Your task to perform on an android device: What's on my calendar today? Image 0: 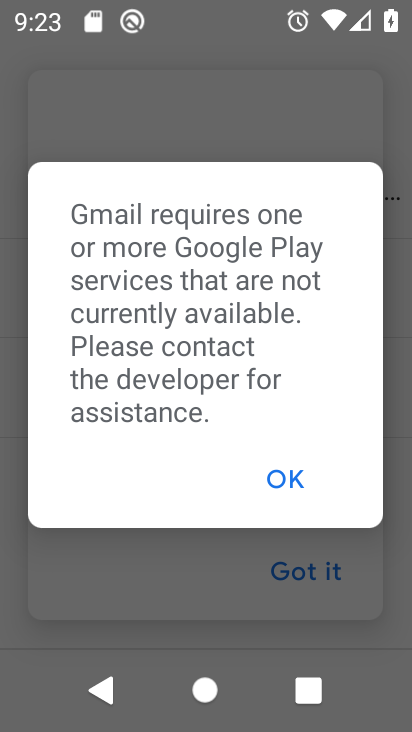
Step 0: press home button
Your task to perform on an android device: What's on my calendar today? Image 1: 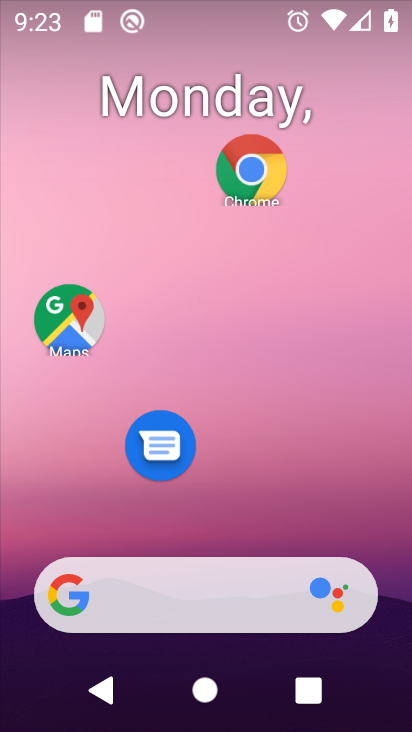
Step 1: drag from (222, 542) to (205, 185)
Your task to perform on an android device: What's on my calendar today? Image 2: 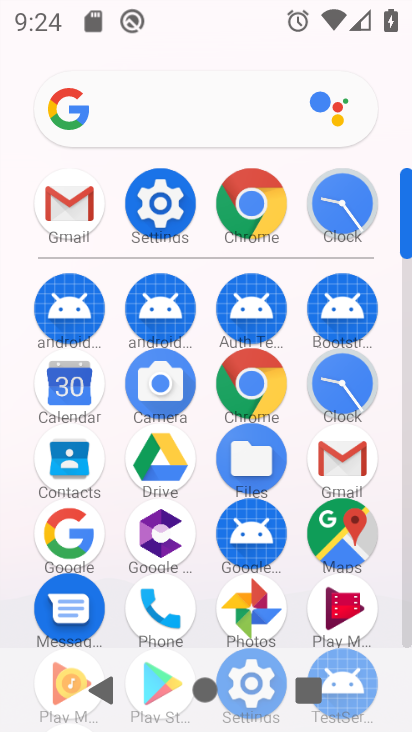
Step 2: click (70, 383)
Your task to perform on an android device: What's on my calendar today? Image 3: 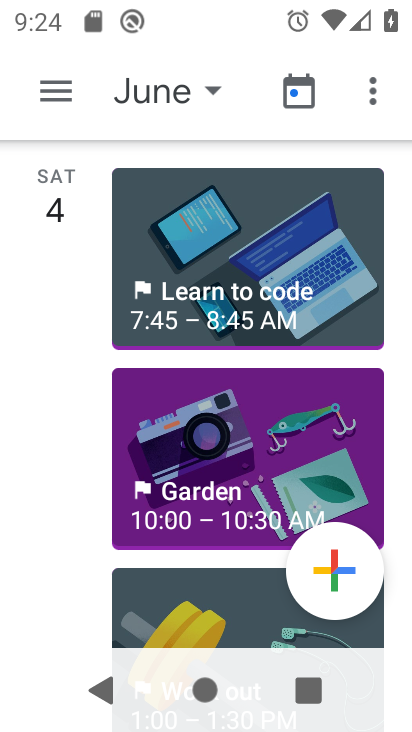
Step 3: click (51, 94)
Your task to perform on an android device: What's on my calendar today? Image 4: 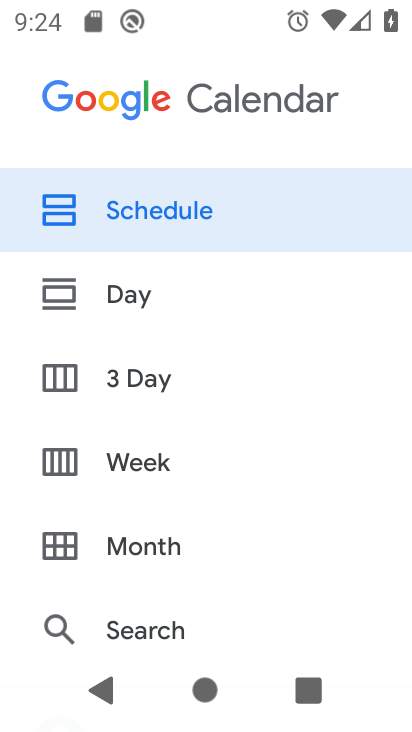
Step 4: click (88, 462)
Your task to perform on an android device: What's on my calendar today? Image 5: 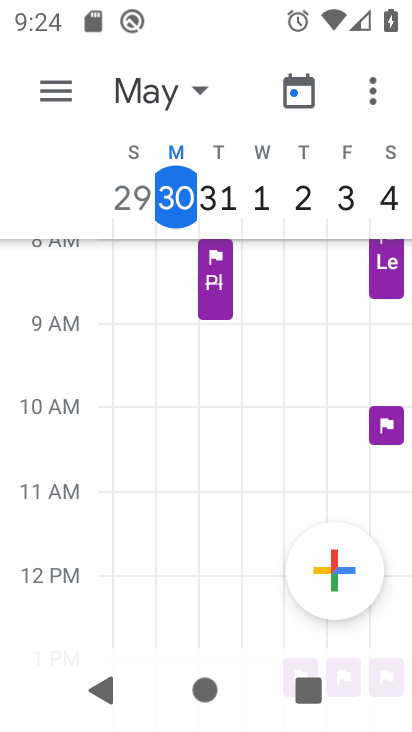
Step 5: click (172, 197)
Your task to perform on an android device: What's on my calendar today? Image 6: 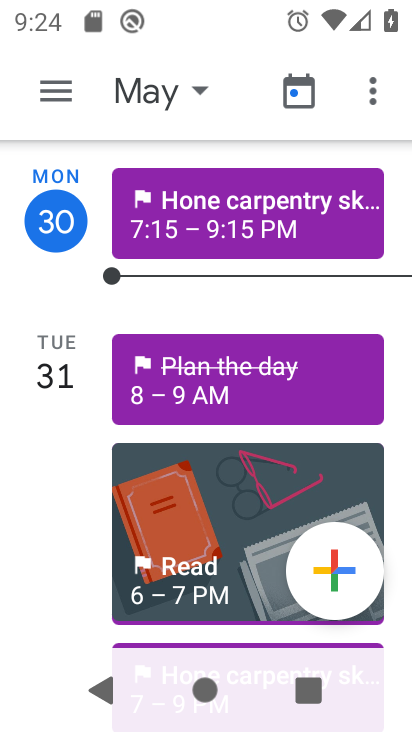
Step 6: click (84, 243)
Your task to perform on an android device: What's on my calendar today? Image 7: 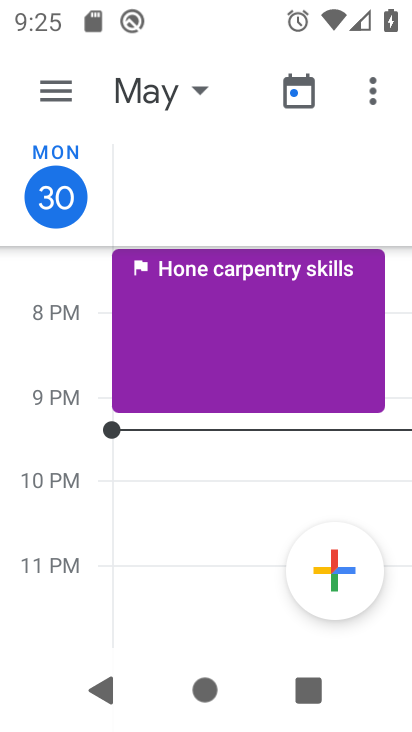
Step 7: task complete